Your task to perform on an android device: Open Wikipedia Image 0: 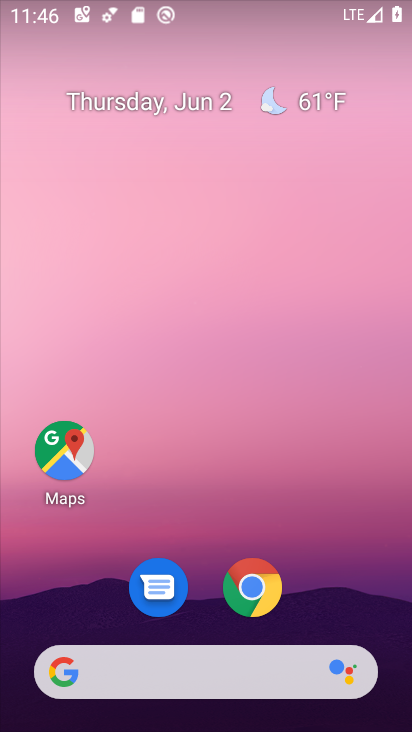
Step 0: click (264, 586)
Your task to perform on an android device: Open Wikipedia Image 1: 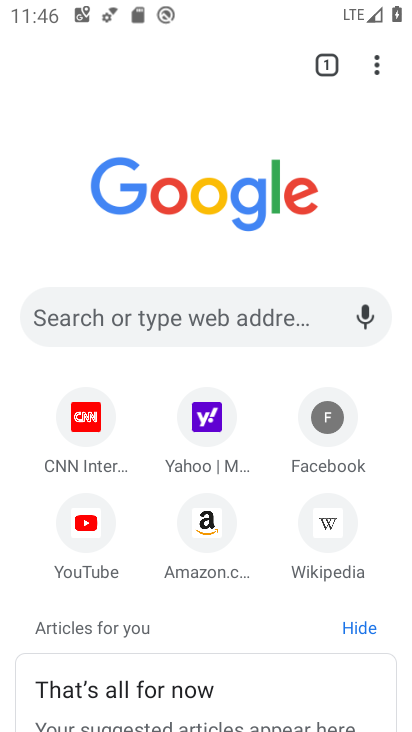
Step 1: click (332, 517)
Your task to perform on an android device: Open Wikipedia Image 2: 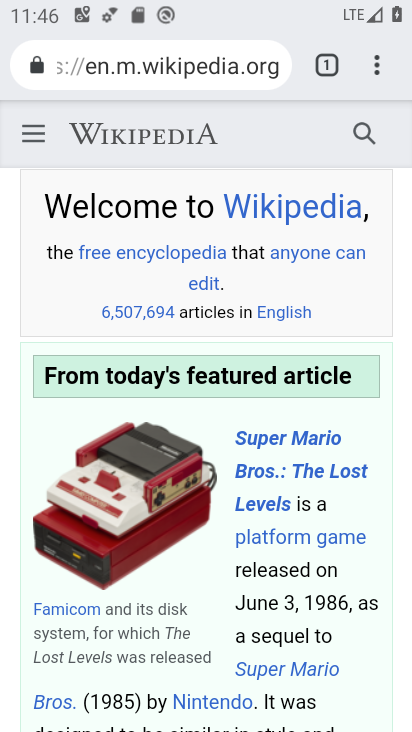
Step 2: task complete